Your task to perform on an android device: make emails show in primary in the gmail app Image 0: 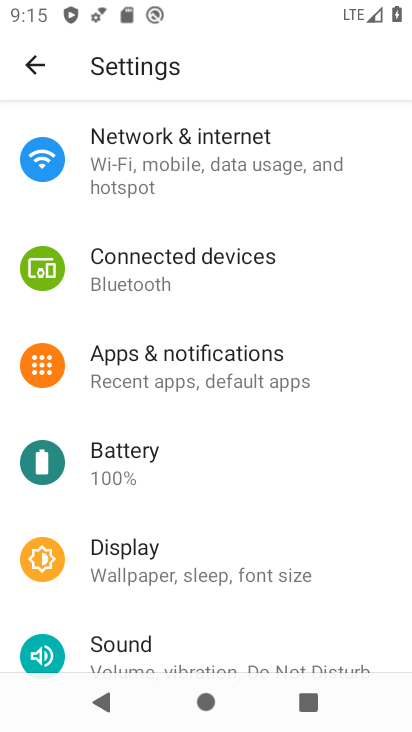
Step 0: press home button
Your task to perform on an android device: make emails show in primary in the gmail app Image 1: 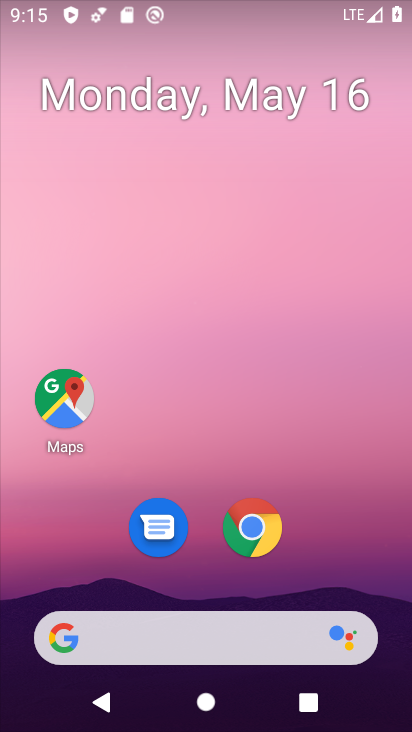
Step 1: drag from (409, 590) to (335, 5)
Your task to perform on an android device: make emails show in primary in the gmail app Image 2: 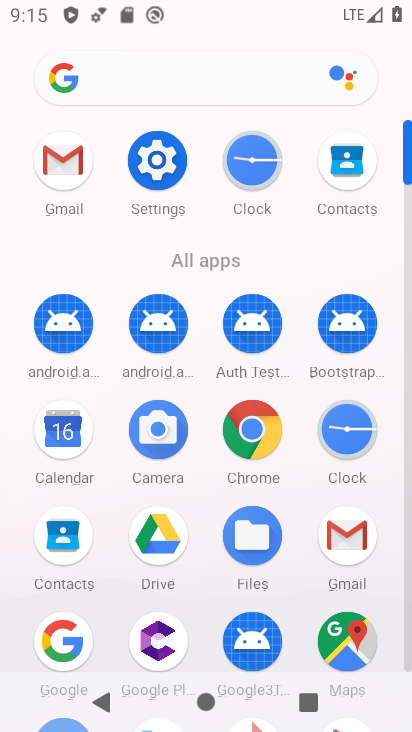
Step 2: click (32, 160)
Your task to perform on an android device: make emails show in primary in the gmail app Image 3: 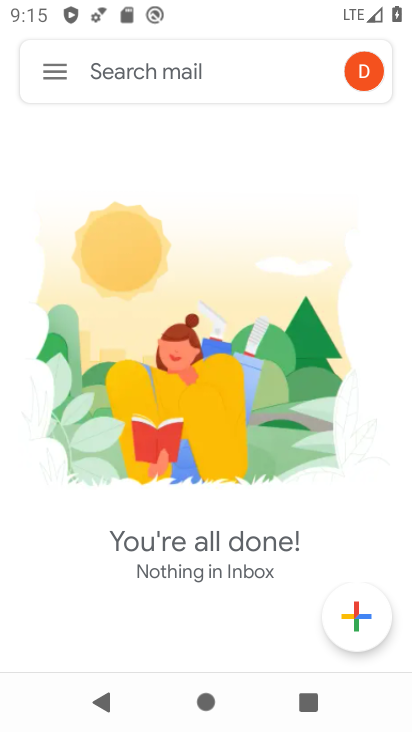
Step 3: click (43, 62)
Your task to perform on an android device: make emails show in primary in the gmail app Image 4: 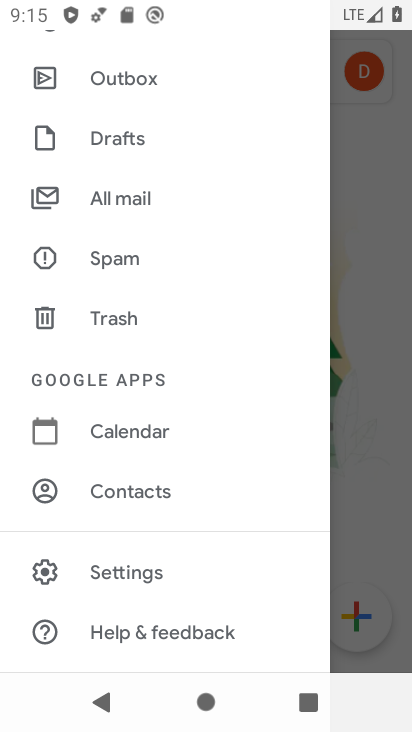
Step 4: click (102, 573)
Your task to perform on an android device: make emails show in primary in the gmail app Image 5: 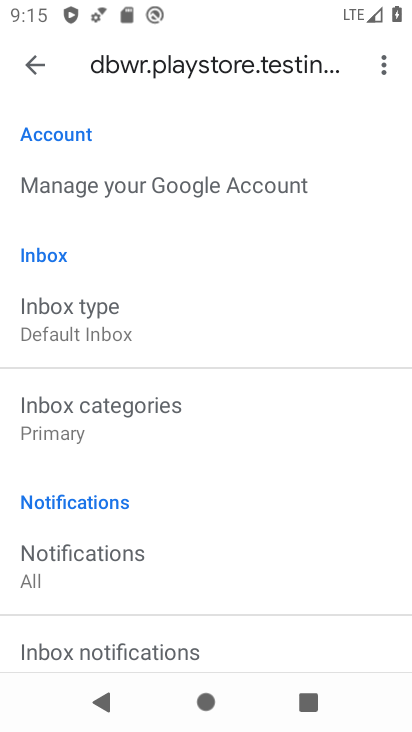
Step 5: task complete